Your task to perform on an android device: Open wifi settings Image 0: 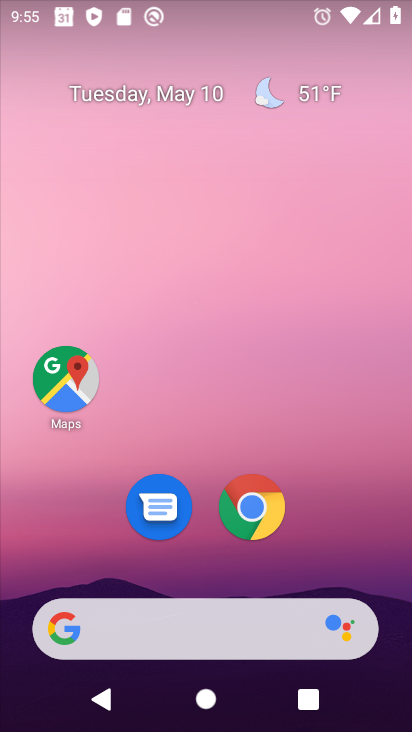
Step 0: drag from (202, 3) to (331, 512)
Your task to perform on an android device: Open wifi settings Image 1: 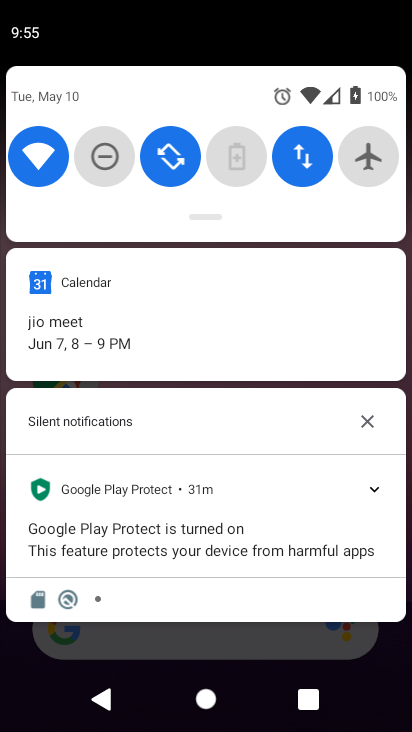
Step 1: click (39, 147)
Your task to perform on an android device: Open wifi settings Image 2: 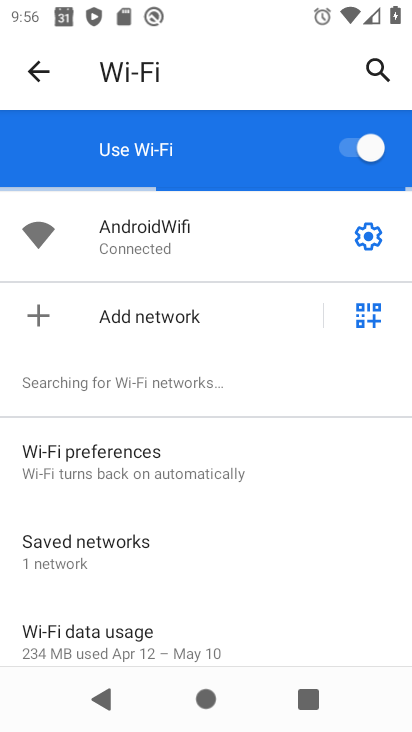
Step 2: task complete